Your task to perform on an android device: What's on my calendar tomorrow? Image 0: 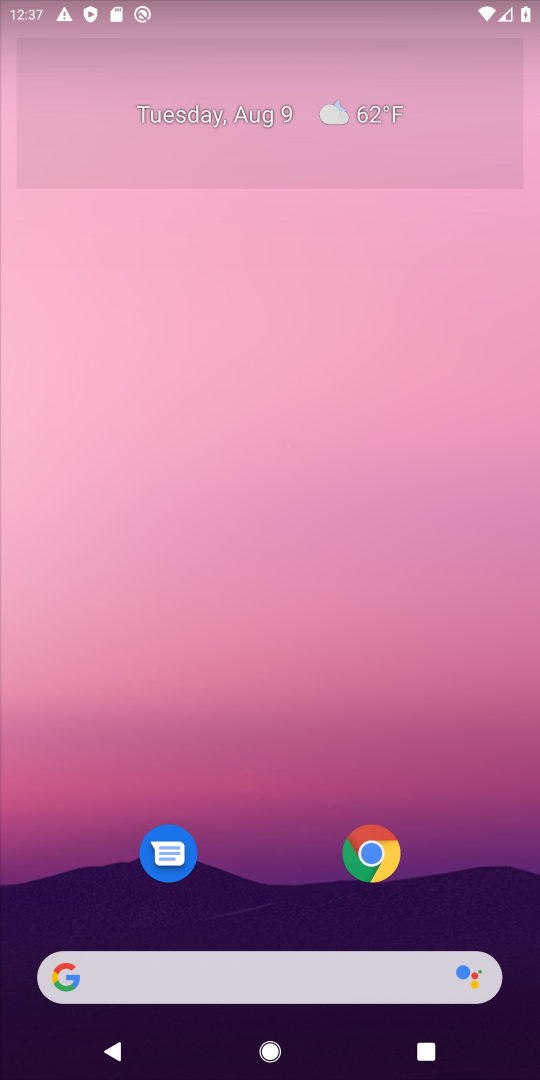
Step 0: drag from (300, 329) to (493, 444)
Your task to perform on an android device: What's on my calendar tomorrow? Image 1: 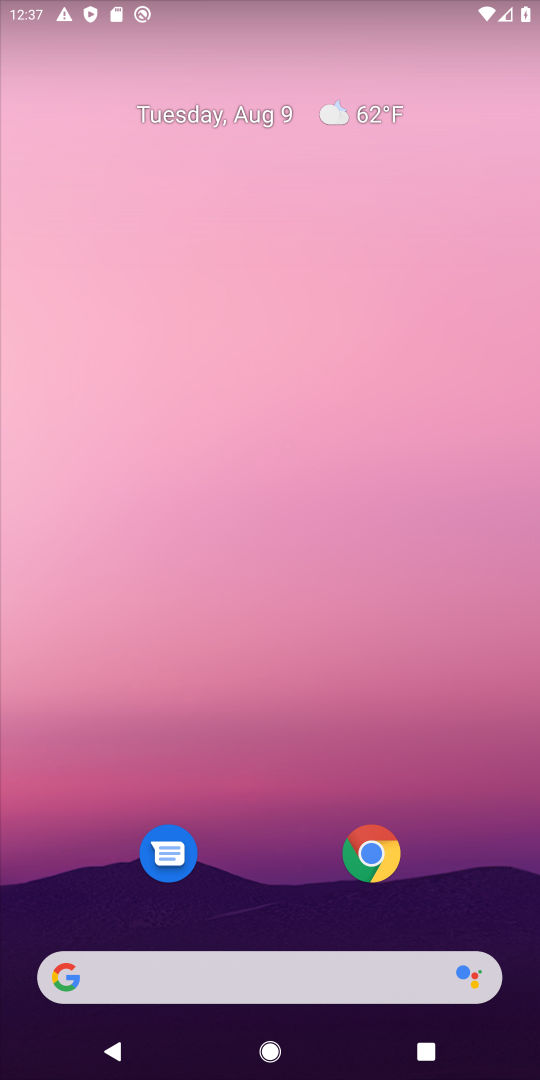
Step 1: drag from (269, 865) to (285, 19)
Your task to perform on an android device: What's on my calendar tomorrow? Image 2: 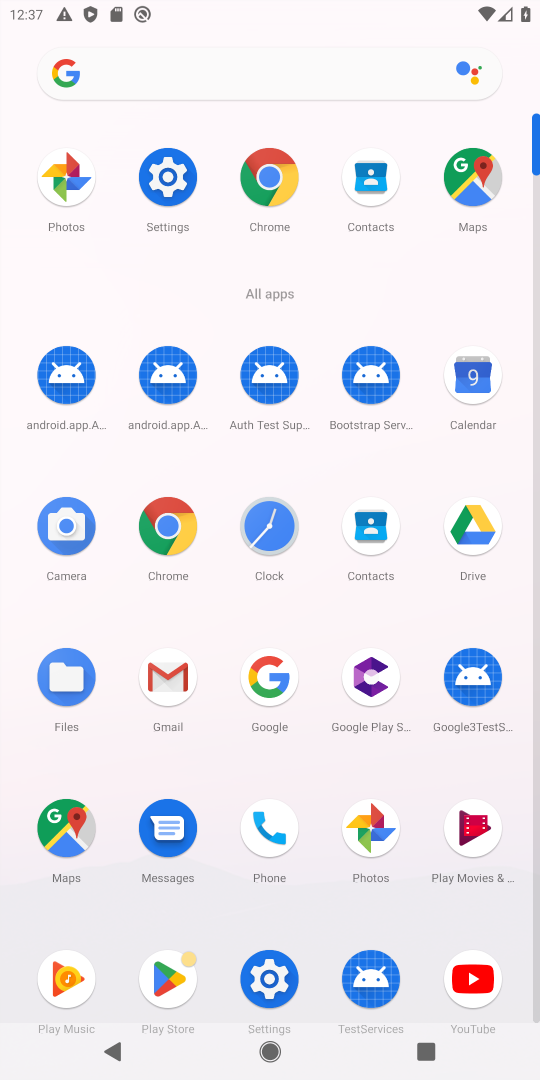
Step 2: click (480, 382)
Your task to perform on an android device: What's on my calendar tomorrow? Image 3: 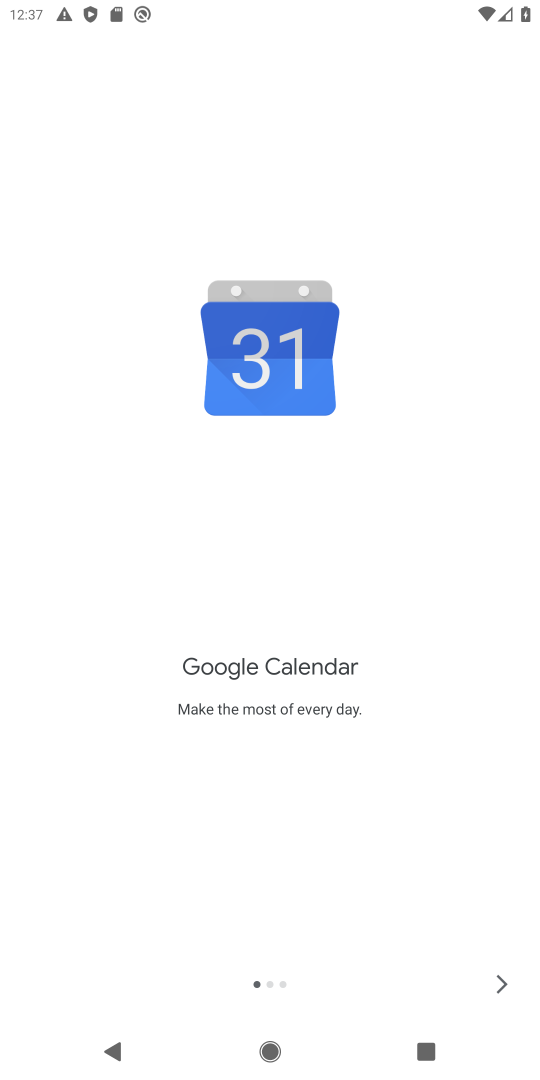
Step 3: click (503, 978)
Your task to perform on an android device: What's on my calendar tomorrow? Image 4: 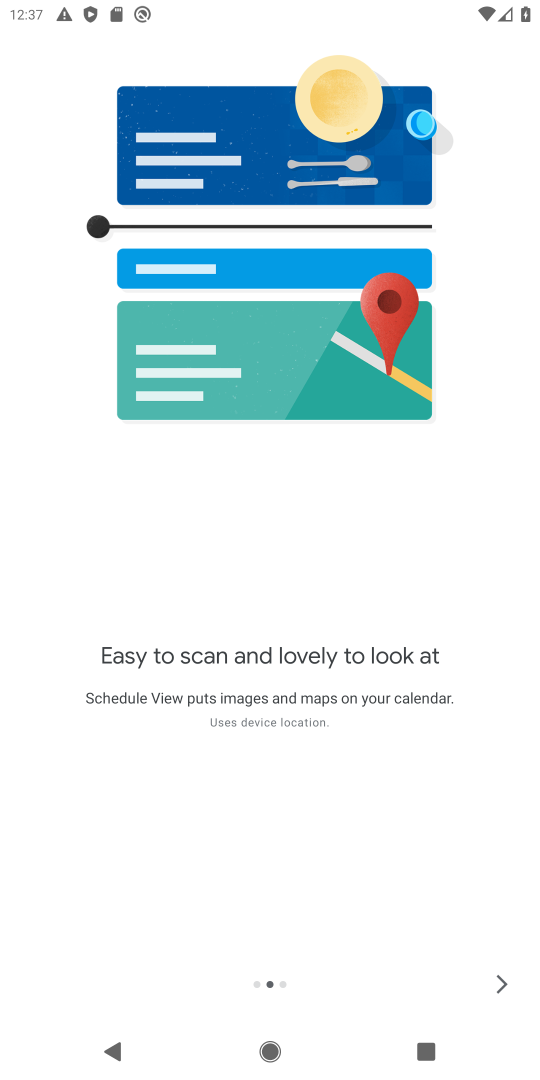
Step 4: click (496, 980)
Your task to perform on an android device: What's on my calendar tomorrow? Image 5: 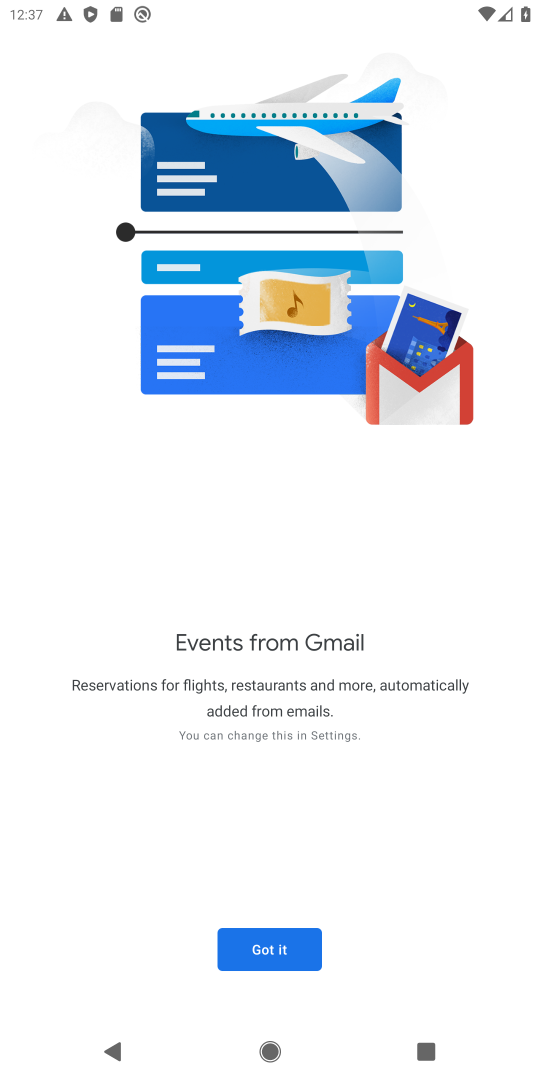
Step 5: click (226, 957)
Your task to perform on an android device: What's on my calendar tomorrow? Image 6: 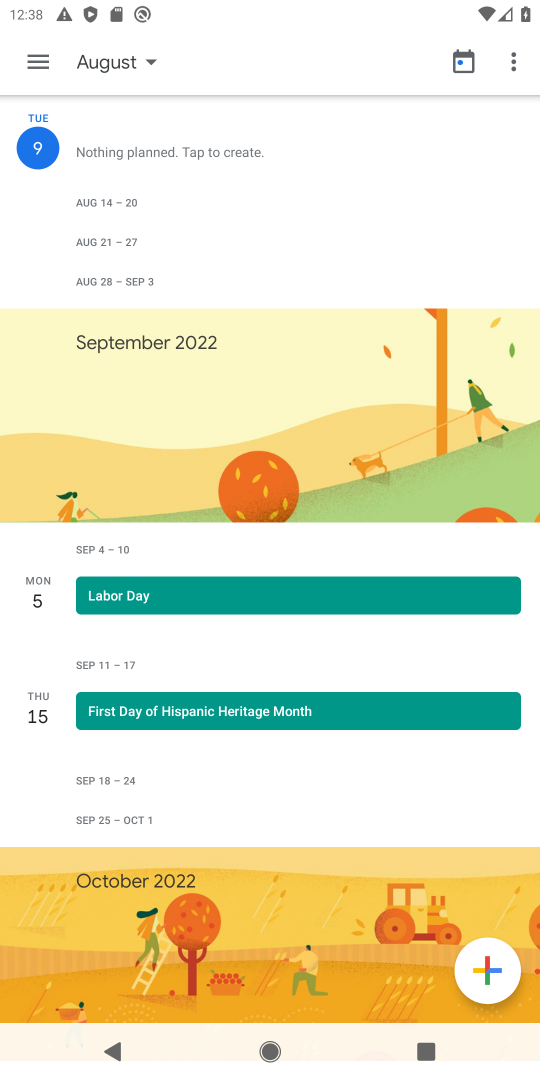
Step 6: task complete